Your task to perform on an android device: Open Android settings Image 0: 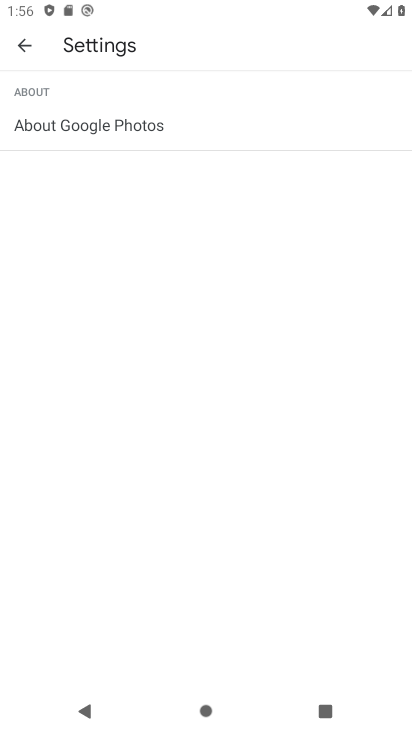
Step 0: task complete